Your task to perform on an android device: turn off picture-in-picture Image 0: 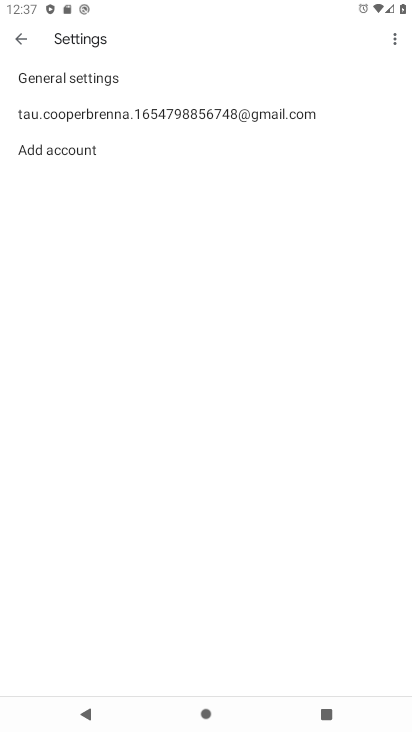
Step 0: press home button
Your task to perform on an android device: turn off picture-in-picture Image 1: 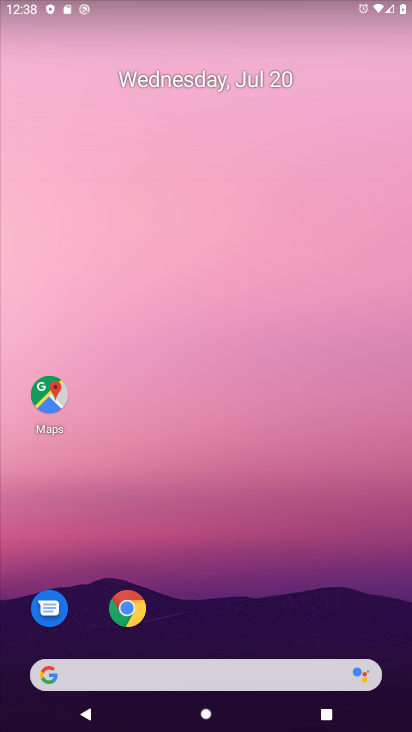
Step 1: click (127, 611)
Your task to perform on an android device: turn off picture-in-picture Image 2: 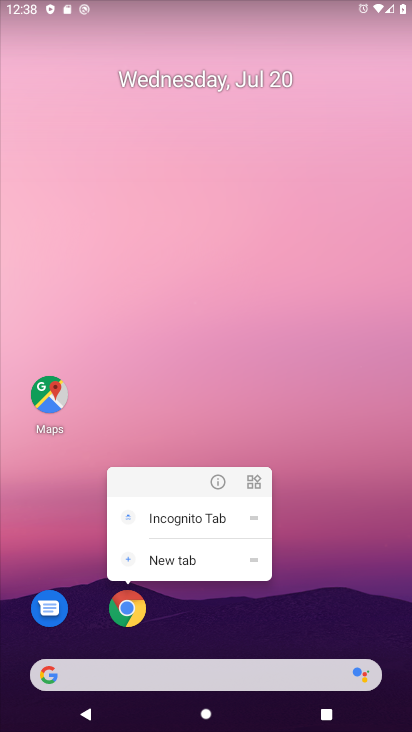
Step 2: click (220, 482)
Your task to perform on an android device: turn off picture-in-picture Image 3: 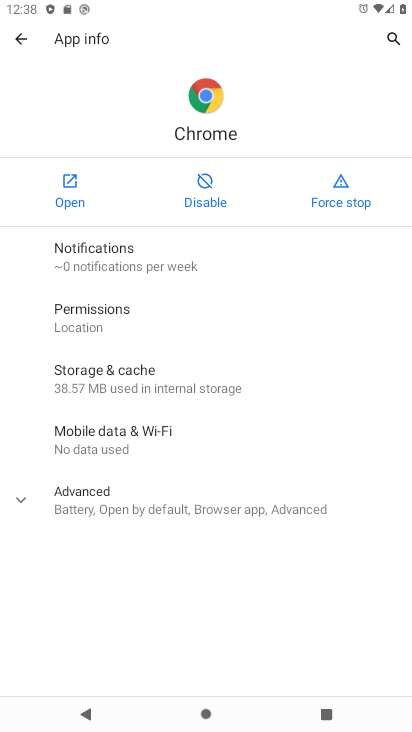
Step 3: click (162, 510)
Your task to perform on an android device: turn off picture-in-picture Image 4: 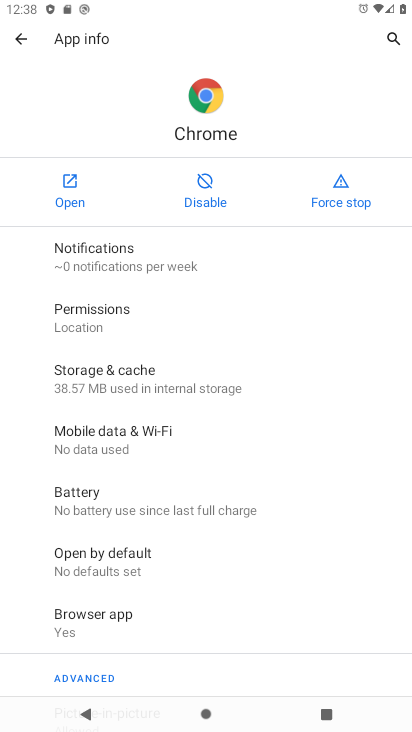
Step 4: drag from (126, 581) to (190, 451)
Your task to perform on an android device: turn off picture-in-picture Image 5: 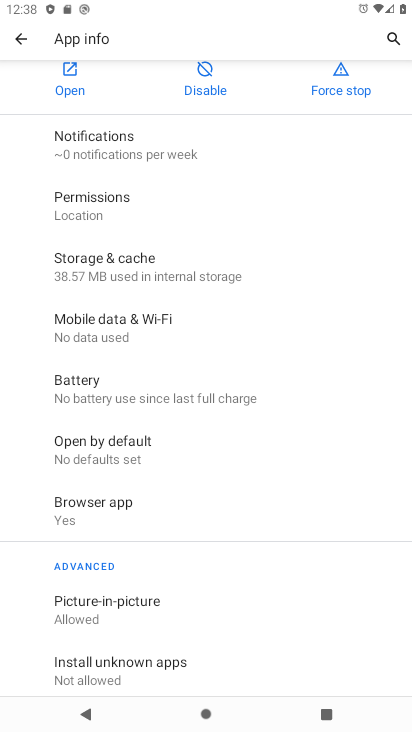
Step 5: click (124, 603)
Your task to perform on an android device: turn off picture-in-picture Image 6: 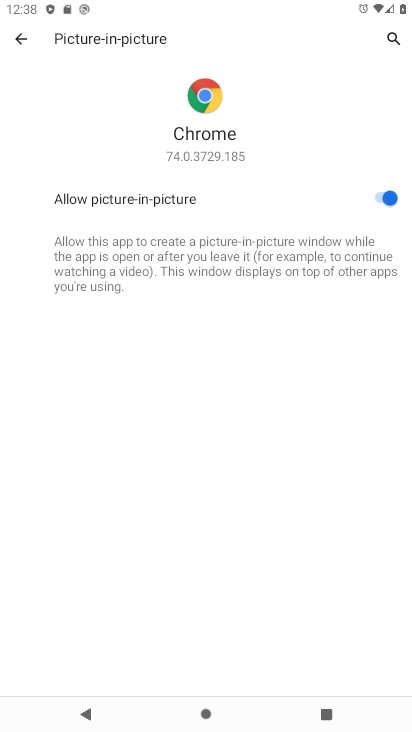
Step 6: click (381, 199)
Your task to perform on an android device: turn off picture-in-picture Image 7: 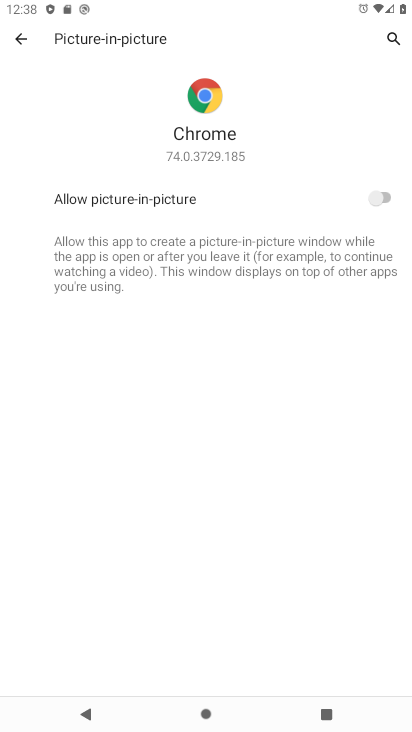
Step 7: task complete